Your task to perform on an android device: search for starred emails in the gmail app Image 0: 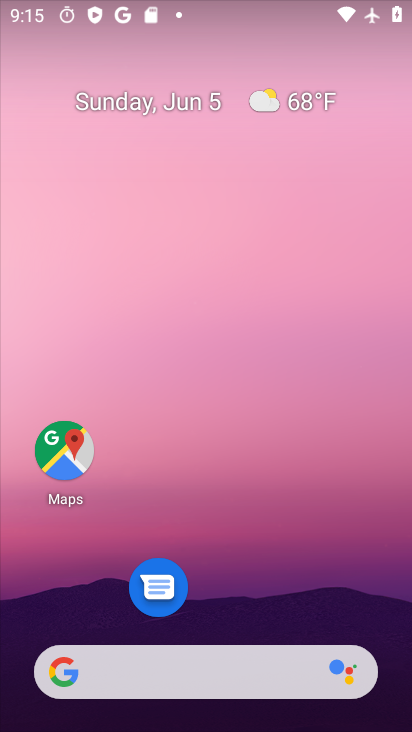
Step 0: drag from (253, 626) to (202, 119)
Your task to perform on an android device: search for starred emails in the gmail app Image 1: 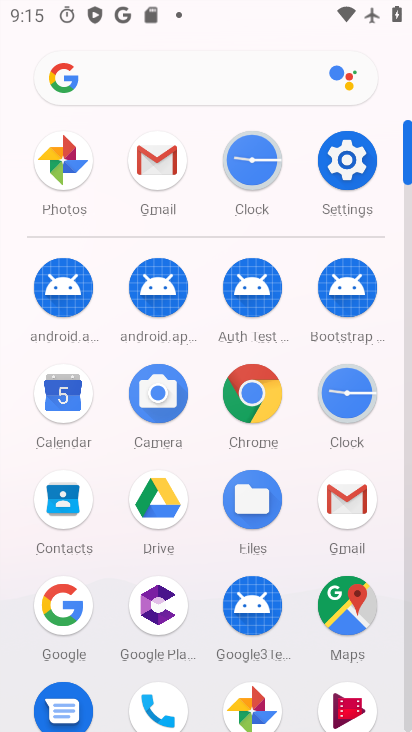
Step 1: click (334, 506)
Your task to perform on an android device: search for starred emails in the gmail app Image 2: 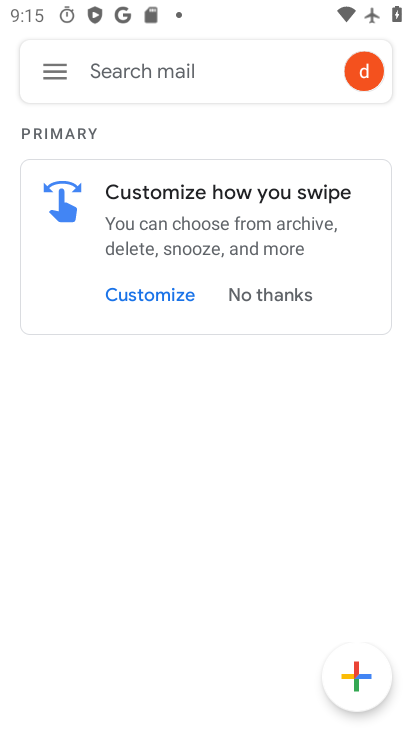
Step 2: click (63, 64)
Your task to perform on an android device: search for starred emails in the gmail app Image 3: 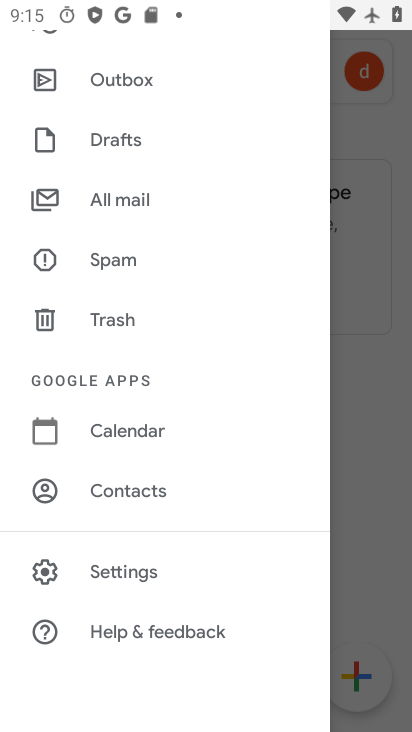
Step 3: drag from (170, 113) to (208, 671)
Your task to perform on an android device: search for starred emails in the gmail app Image 4: 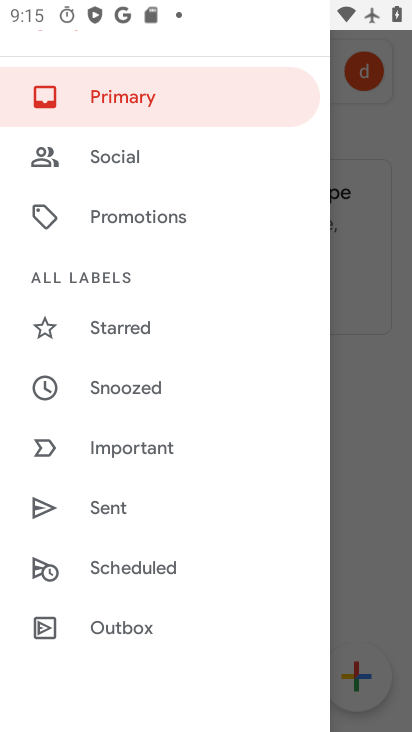
Step 4: click (123, 325)
Your task to perform on an android device: search for starred emails in the gmail app Image 5: 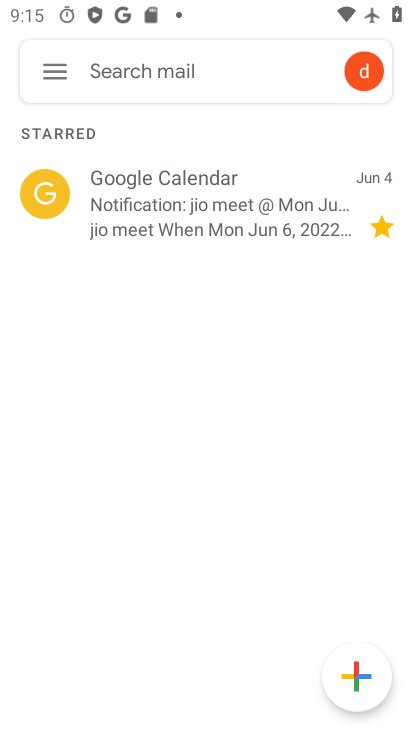
Step 5: task complete